Your task to perform on an android device: Look up the best rated gaming chairs on Target. Image 0: 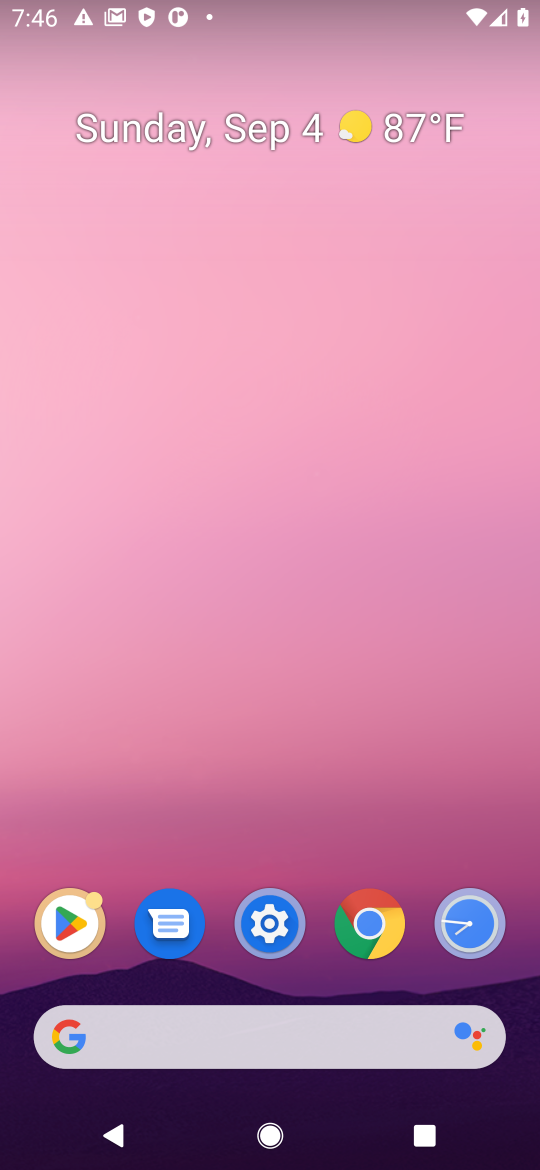
Step 0: press home button
Your task to perform on an android device: Look up the best rated gaming chairs on Target. Image 1: 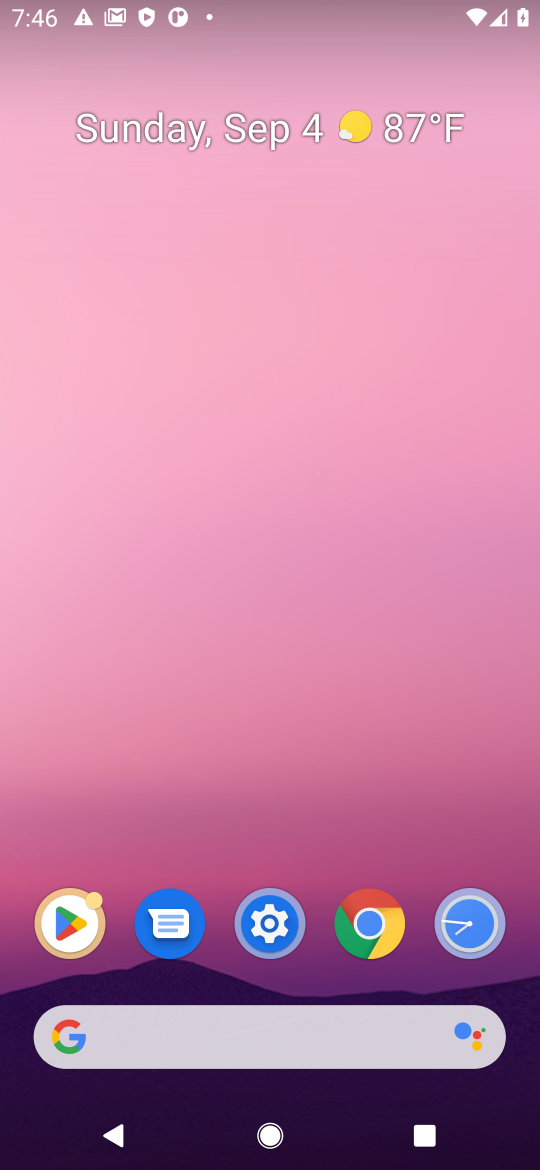
Step 1: click (413, 1034)
Your task to perform on an android device: Look up the best rated gaming chairs on Target. Image 2: 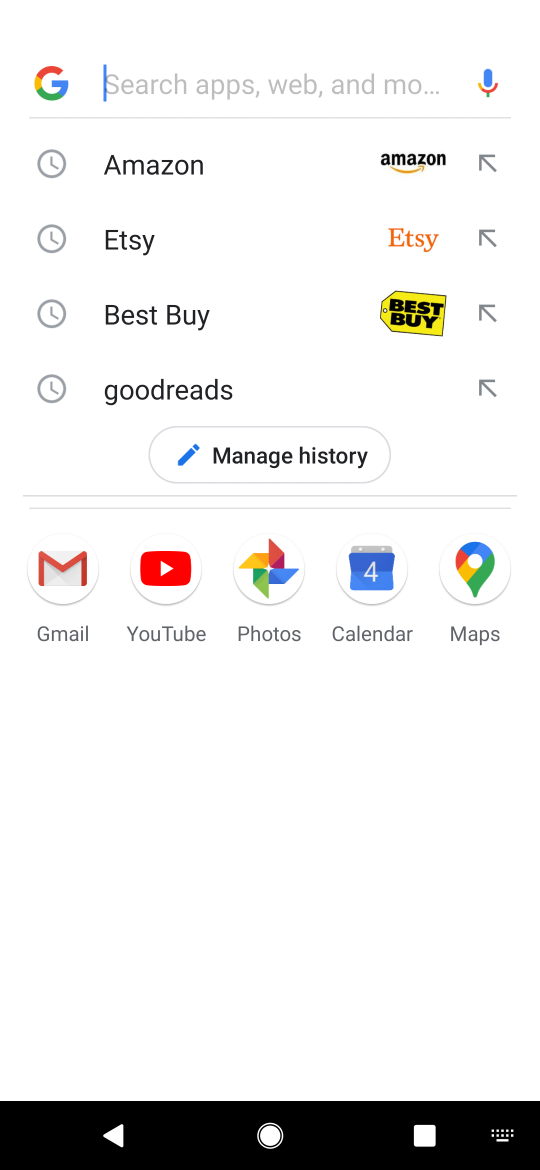
Step 2: type "target"
Your task to perform on an android device: Look up the best rated gaming chairs on Target. Image 3: 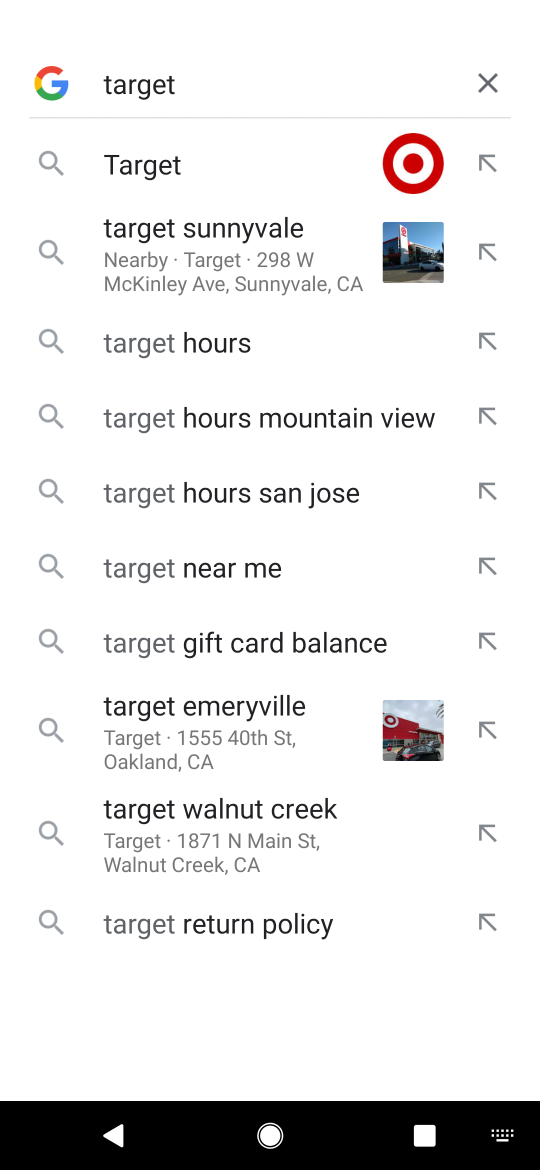
Step 3: press enter
Your task to perform on an android device: Look up the best rated gaming chairs on Target. Image 4: 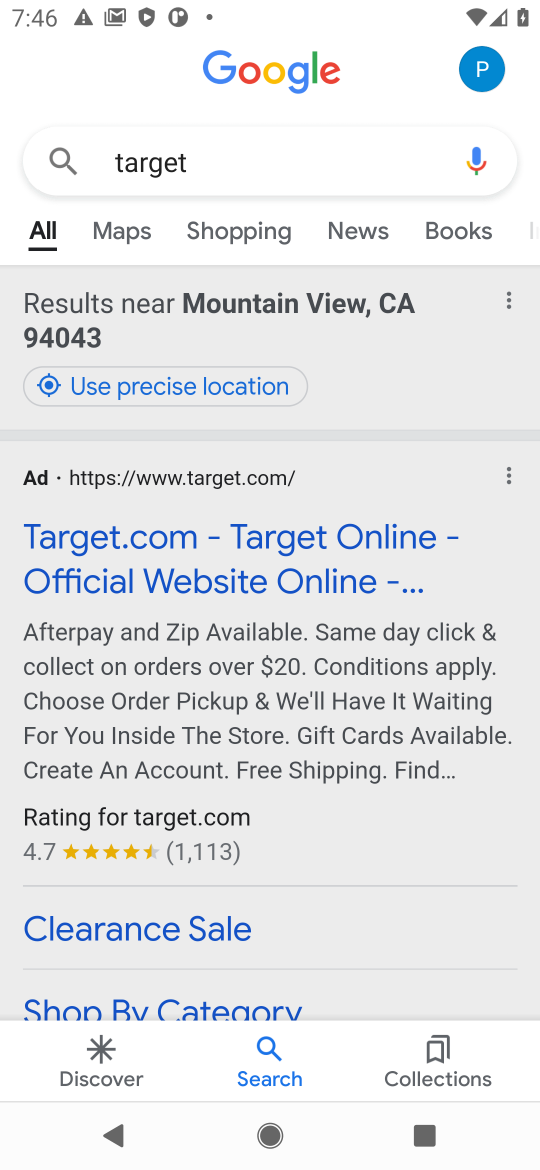
Step 4: click (237, 530)
Your task to perform on an android device: Look up the best rated gaming chairs on Target. Image 5: 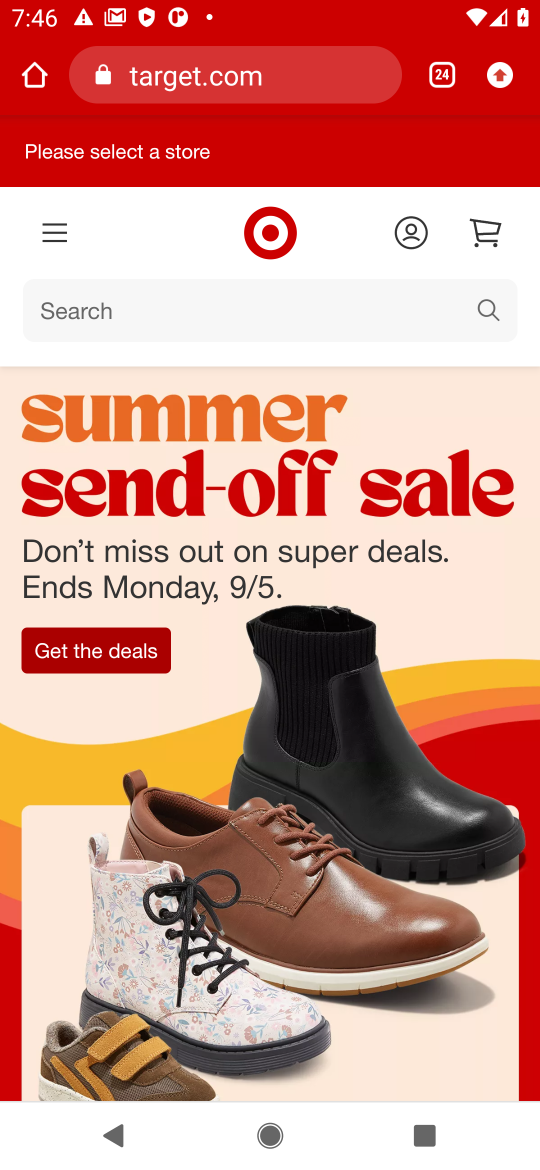
Step 5: click (143, 310)
Your task to perform on an android device: Look up the best rated gaming chairs on Target. Image 6: 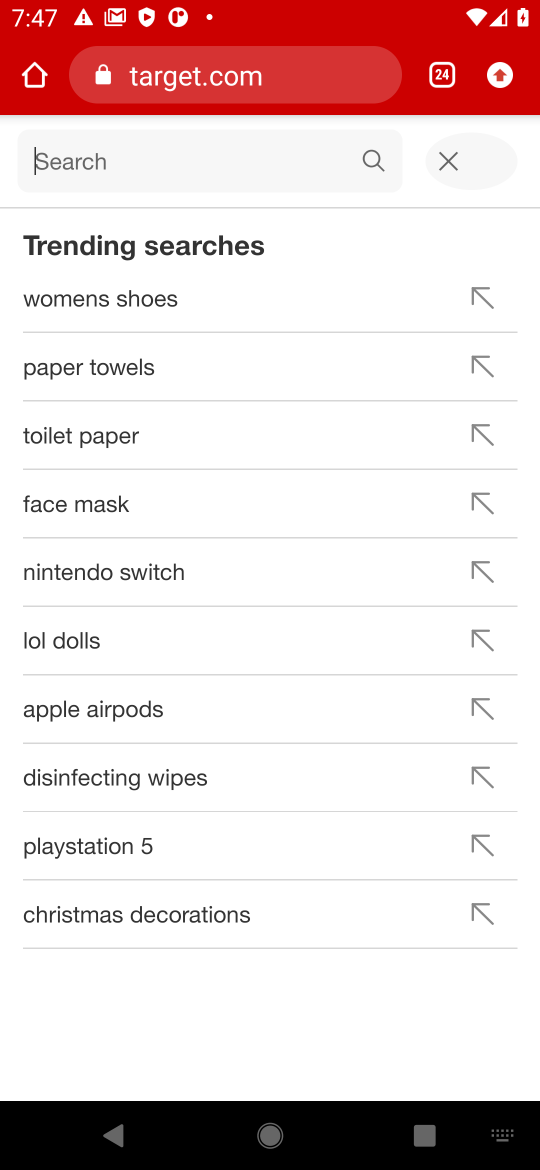
Step 6: press enter
Your task to perform on an android device: Look up the best rated gaming chairs on Target. Image 7: 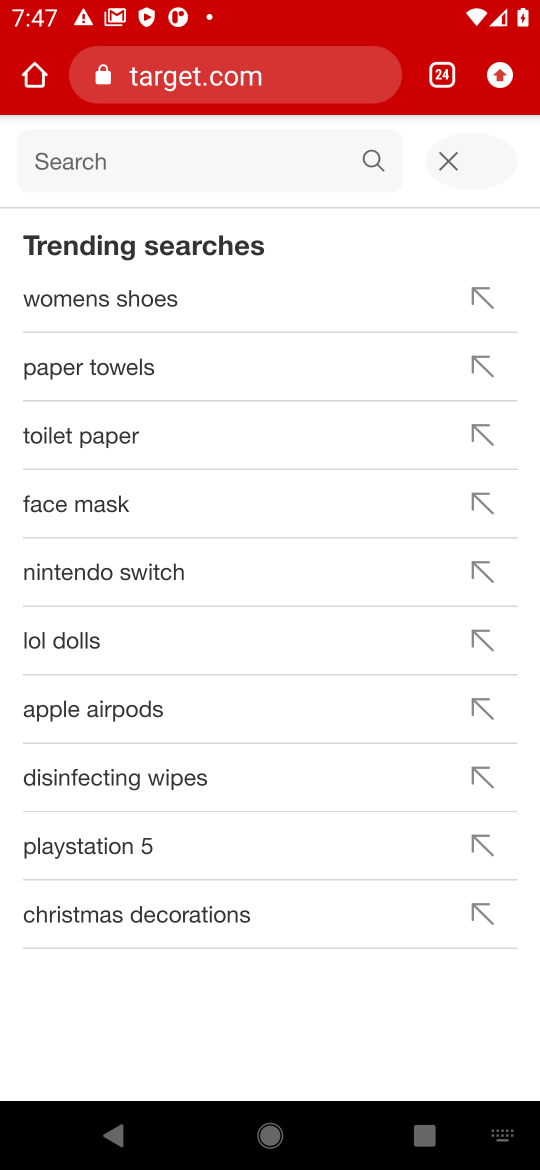
Step 7: type "gaming chairs"
Your task to perform on an android device: Look up the best rated gaming chairs on Target. Image 8: 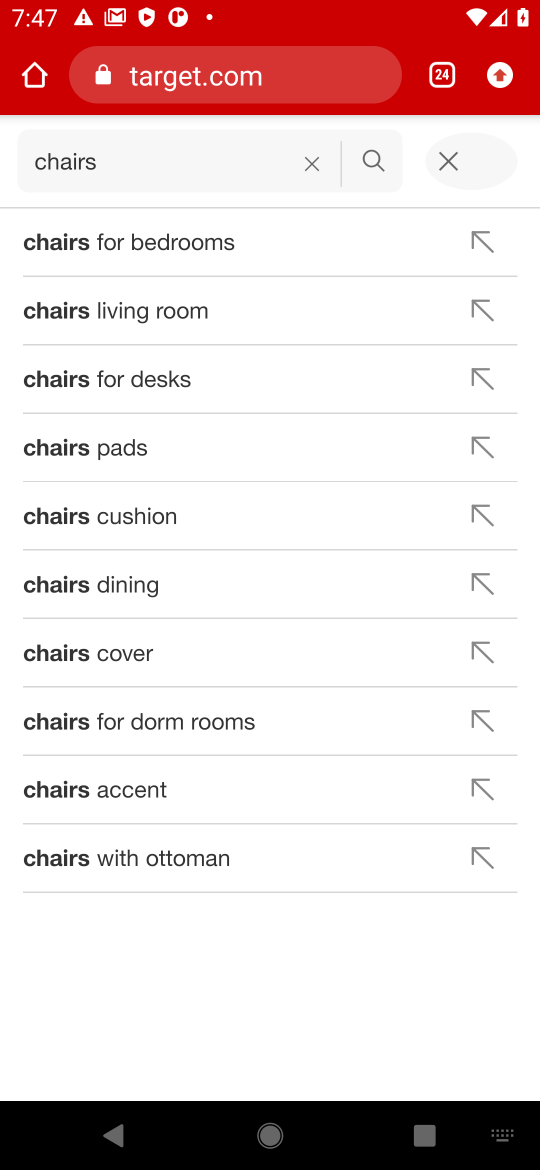
Step 8: click (373, 150)
Your task to perform on an android device: Look up the best rated gaming chairs on Target. Image 9: 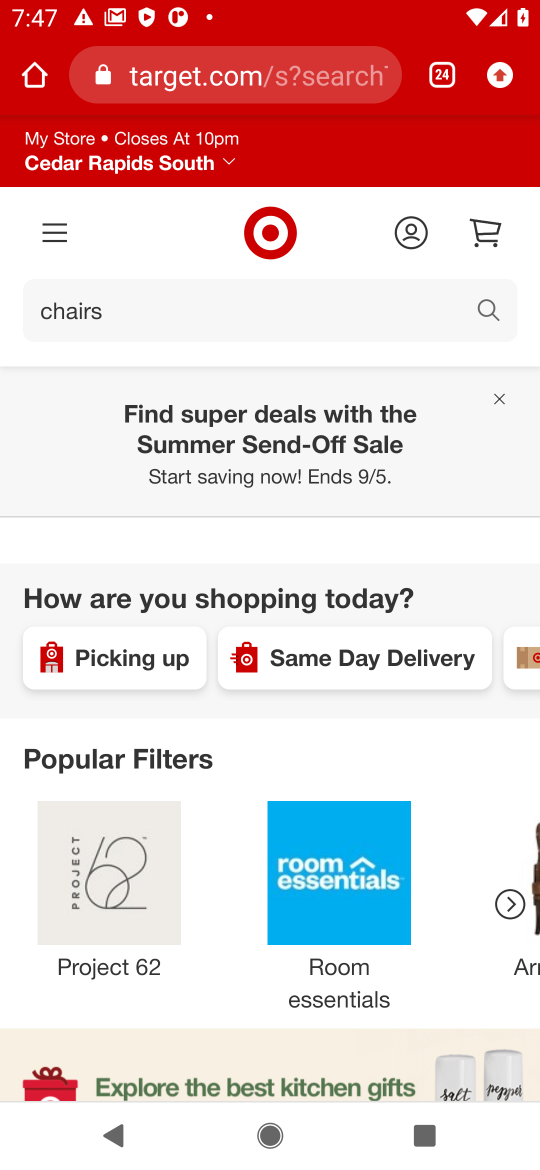
Step 9: task complete